Your task to perform on an android device: Show me popular games on the Play Store Image 0: 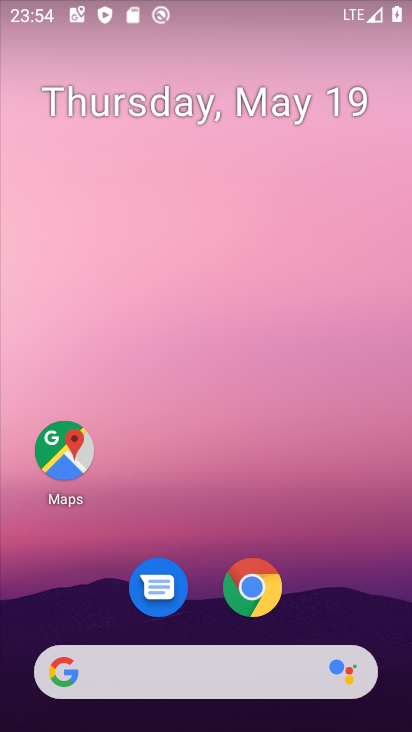
Step 0: drag from (284, 709) to (192, 190)
Your task to perform on an android device: Show me popular games on the Play Store Image 1: 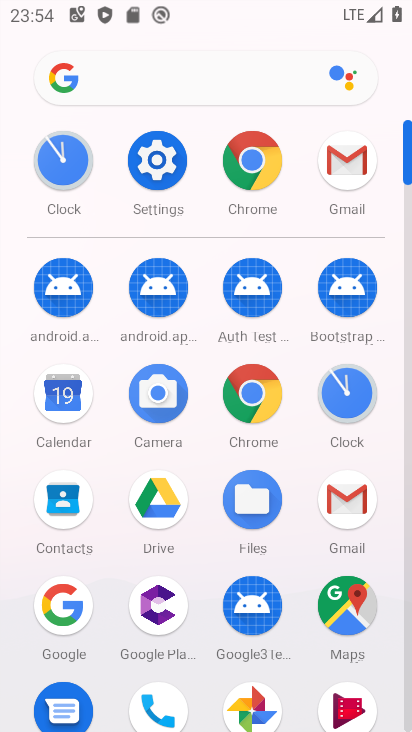
Step 1: drag from (115, 551) to (106, 428)
Your task to perform on an android device: Show me popular games on the Play Store Image 2: 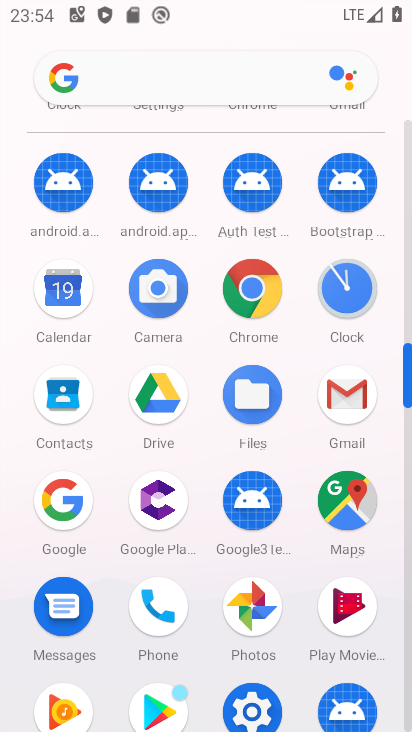
Step 2: click (174, 688)
Your task to perform on an android device: Show me popular games on the Play Store Image 3: 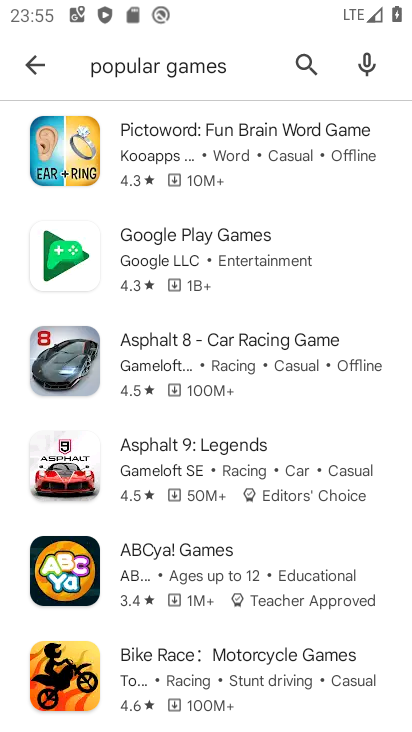
Step 3: task complete